Your task to perform on an android device: check android version Image 0: 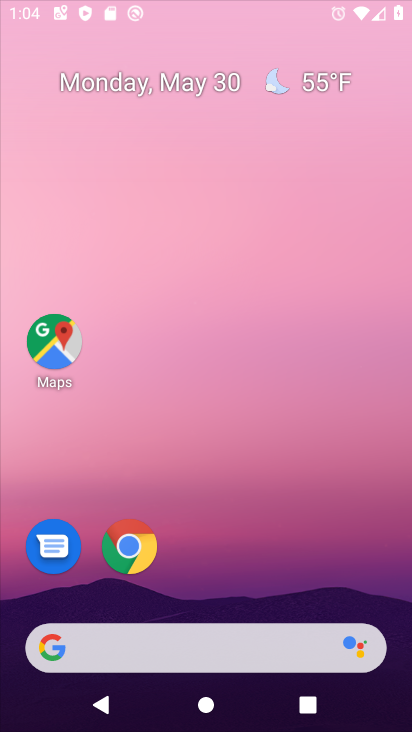
Step 0: press home button
Your task to perform on an android device: check android version Image 1: 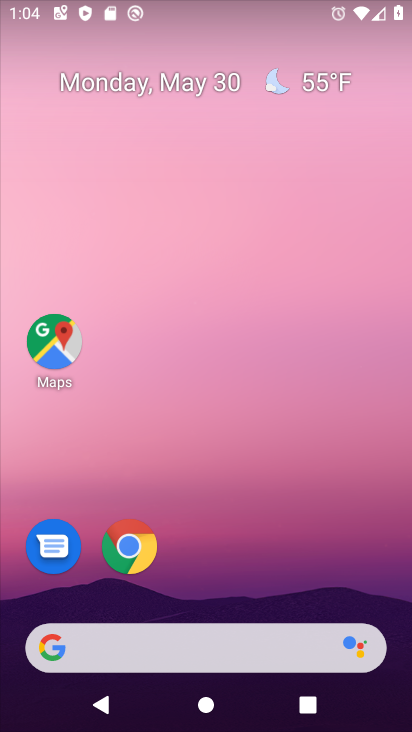
Step 1: drag from (261, 599) to (244, 164)
Your task to perform on an android device: check android version Image 2: 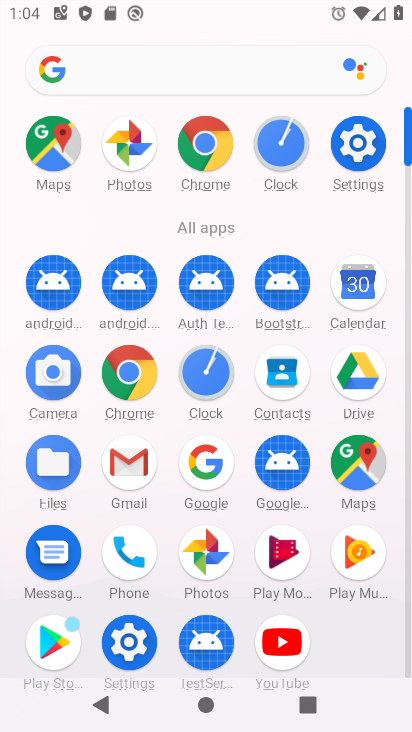
Step 2: click (352, 157)
Your task to perform on an android device: check android version Image 3: 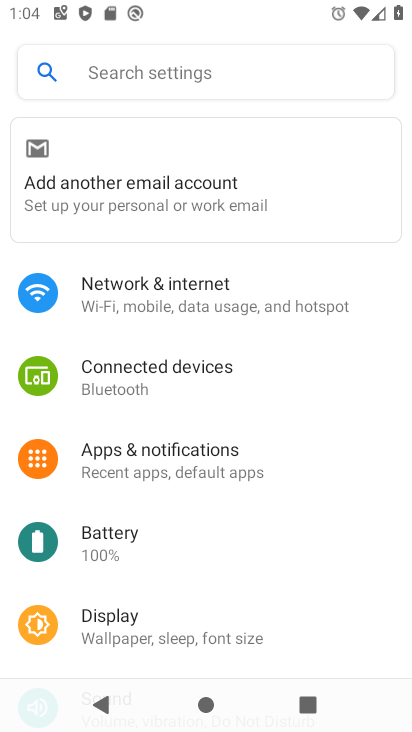
Step 3: drag from (351, 626) to (354, 74)
Your task to perform on an android device: check android version Image 4: 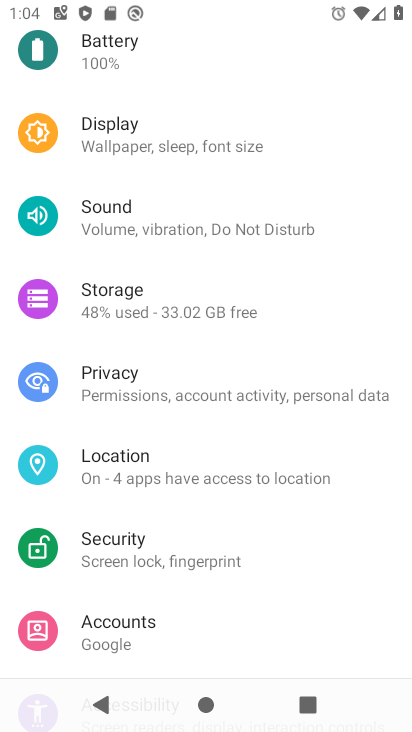
Step 4: drag from (335, 412) to (318, 44)
Your task to perform on an android device: check android version Image 5: 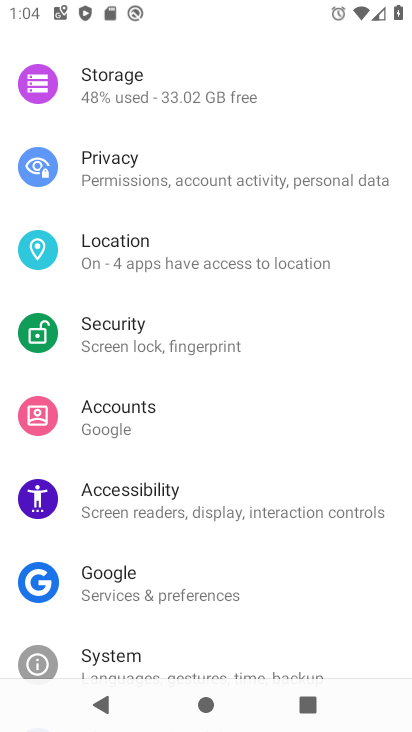
Step 5: drag from (303, 553) to (308, 20)
Your task to perform on an android device: check android version Image 6: 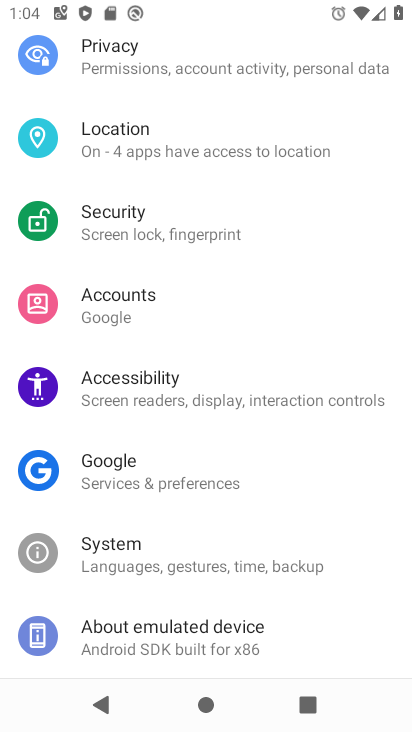
Step 6: click (151, 649)
Your task to perform on an android device: check android version Image 7: 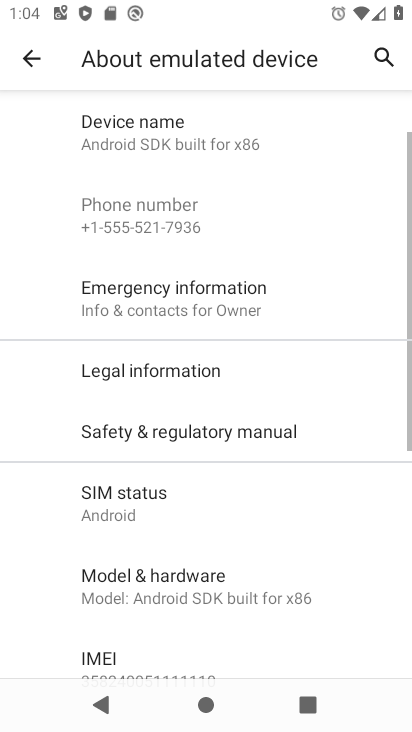
Step 7: task complete